Your task to perform on an android device: What's on my calendar tomorrow? Image 0: 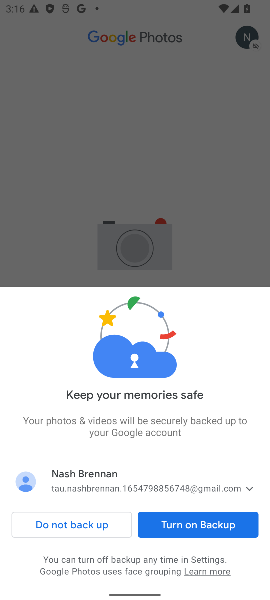
Step 0: press home button
Your task to perform on an android device: What's on my calendar tomorrow? Image 1: 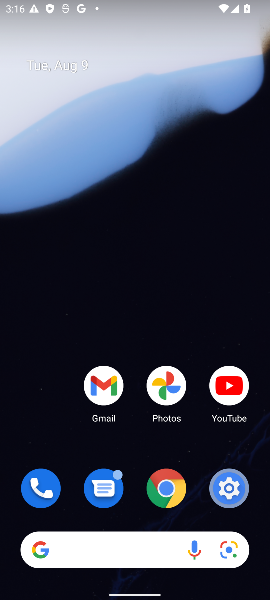
Step 1: drag from (200, 464) to (201, 182)
Your task to perform on an android device: What's on my calendar tomorrow? Image 2: 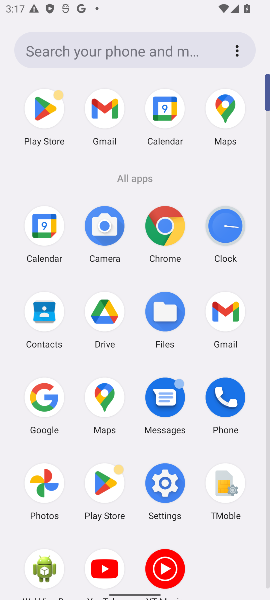
Step 2: click (43, 229)
Your task to perform on an android device: What's on my calendar tomorrow? Image 3: 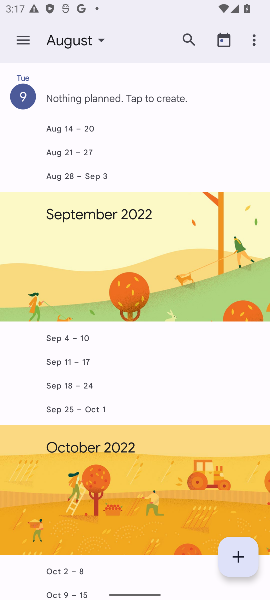
Step 3: click (25, 52)
Your task to perform on an android device: What's on my calendar tomorrow? Image 4: 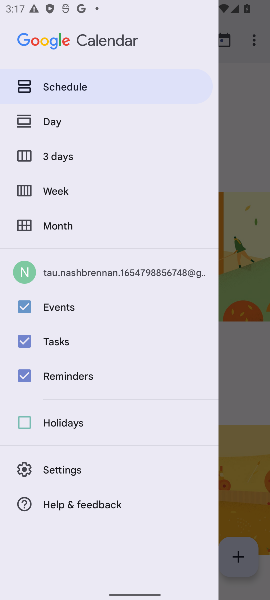
Step 4: click (54, 125)
Your task to perform on an android device: What's on my calendar tomorrow? Image 5: 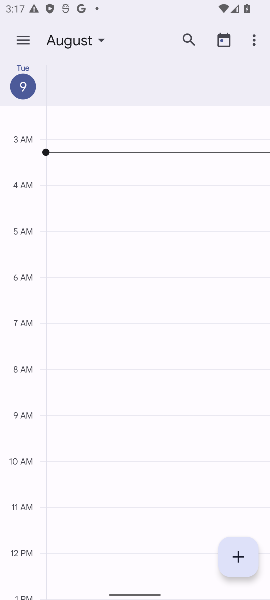
Step 5: task complete